Your task to perform on an android device: uninstall "Gmail" Image 0: 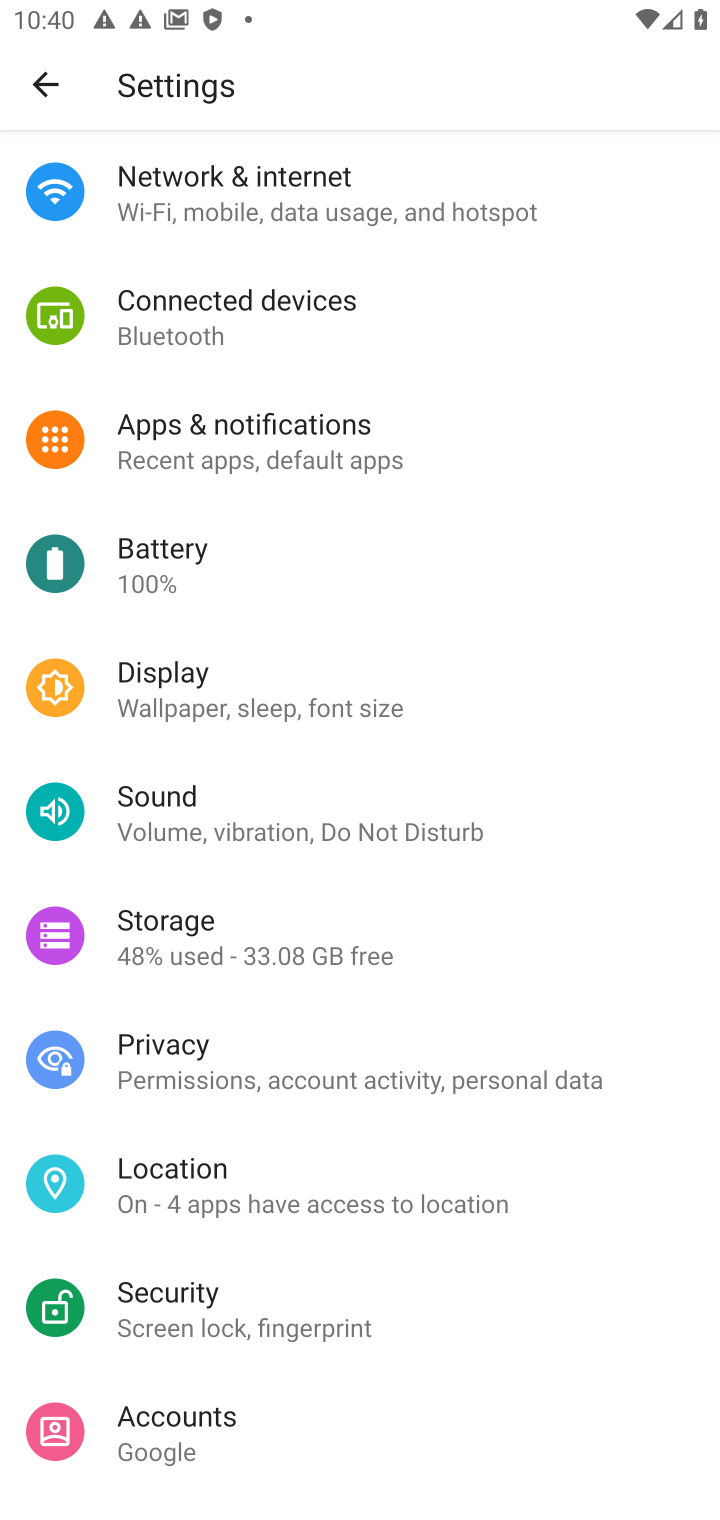
Step 0: press home button
Your task to perform on an android device: uninstall "Gmail" Image 1: 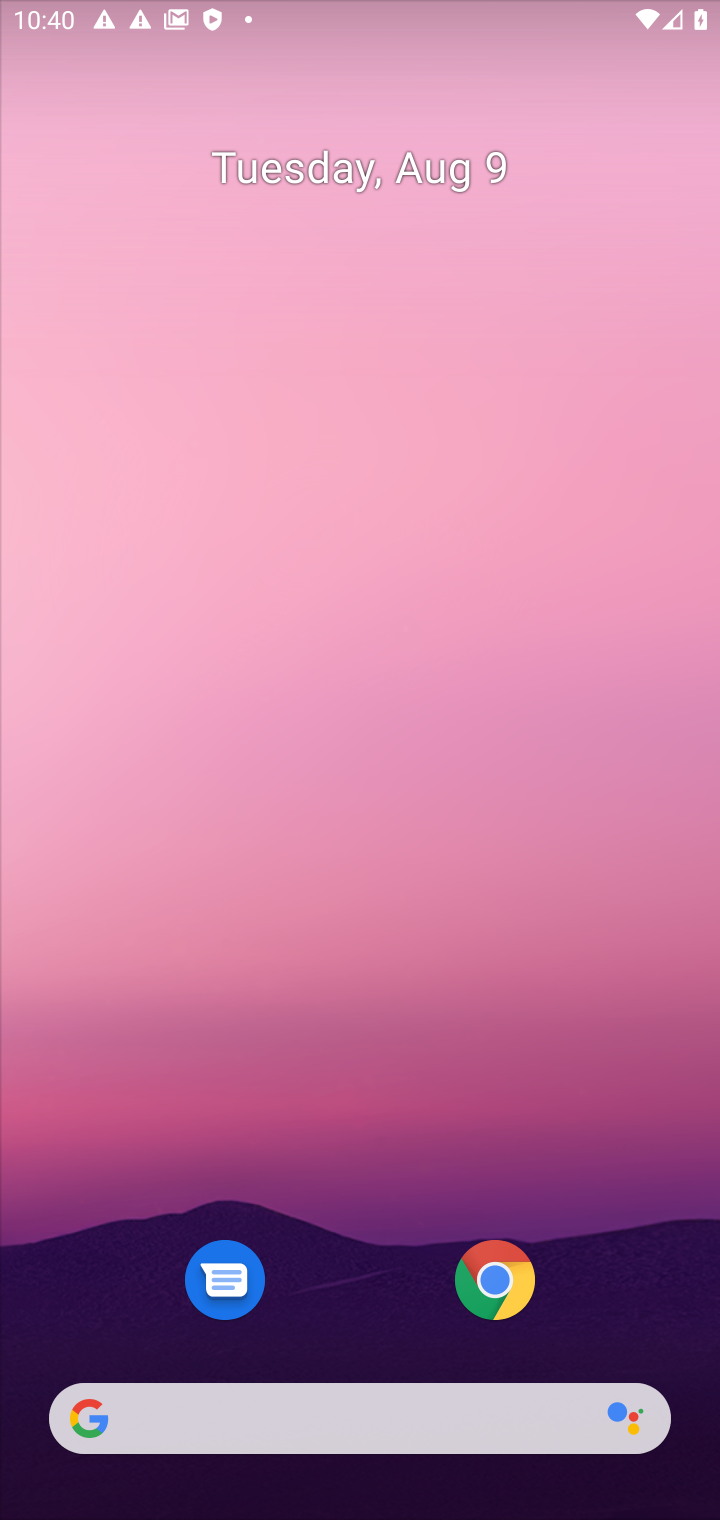
Step 1: drag from (378, 935) to (198, 11)
Your task to perform on an android device: uninstall "Gmail" Image 2: 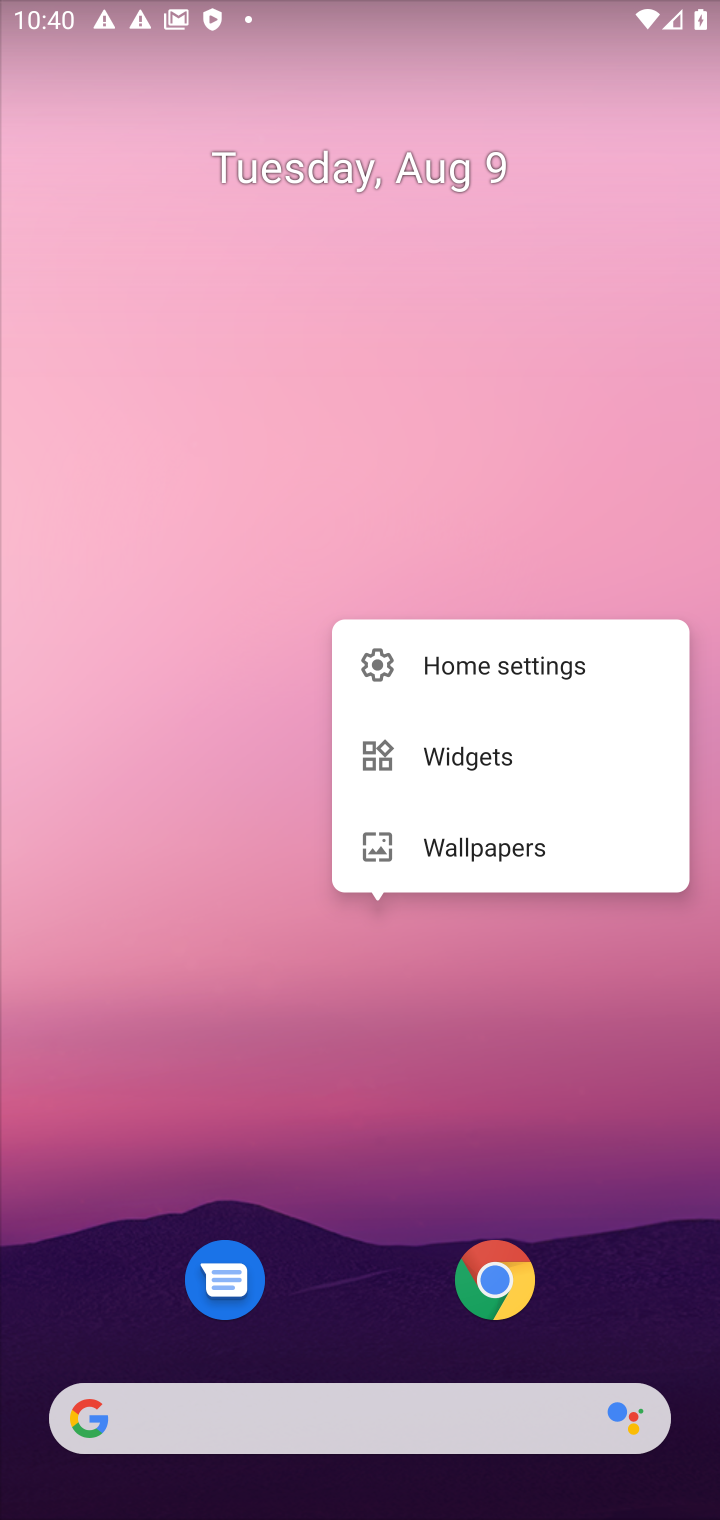
Step 2: click (387, 1346)
Your task to perform on an android device: uninstall "Gmail" Image 3: 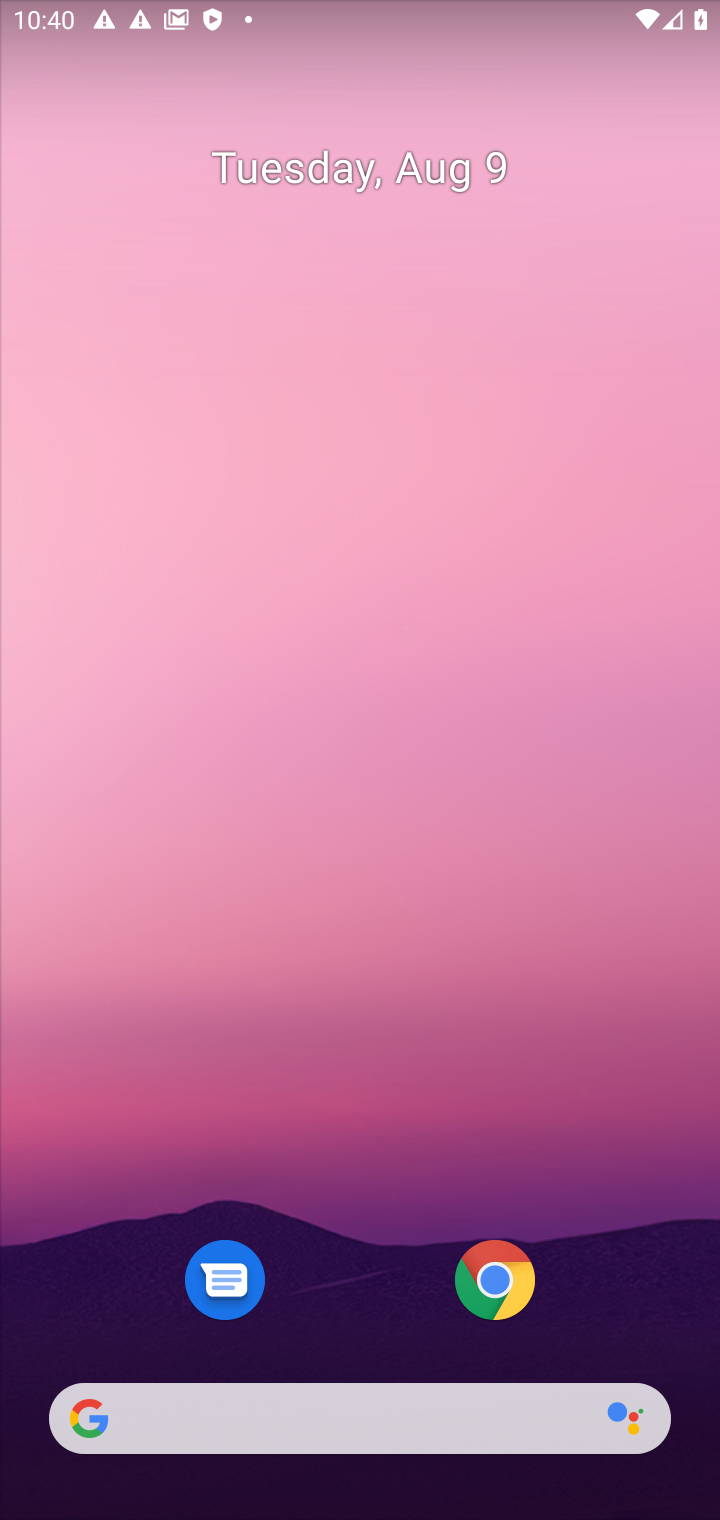
Step 3: drag from (351, 1281) to (26, 924)
Your task to perform on an android device: uninstall "Gmail" Image 4: 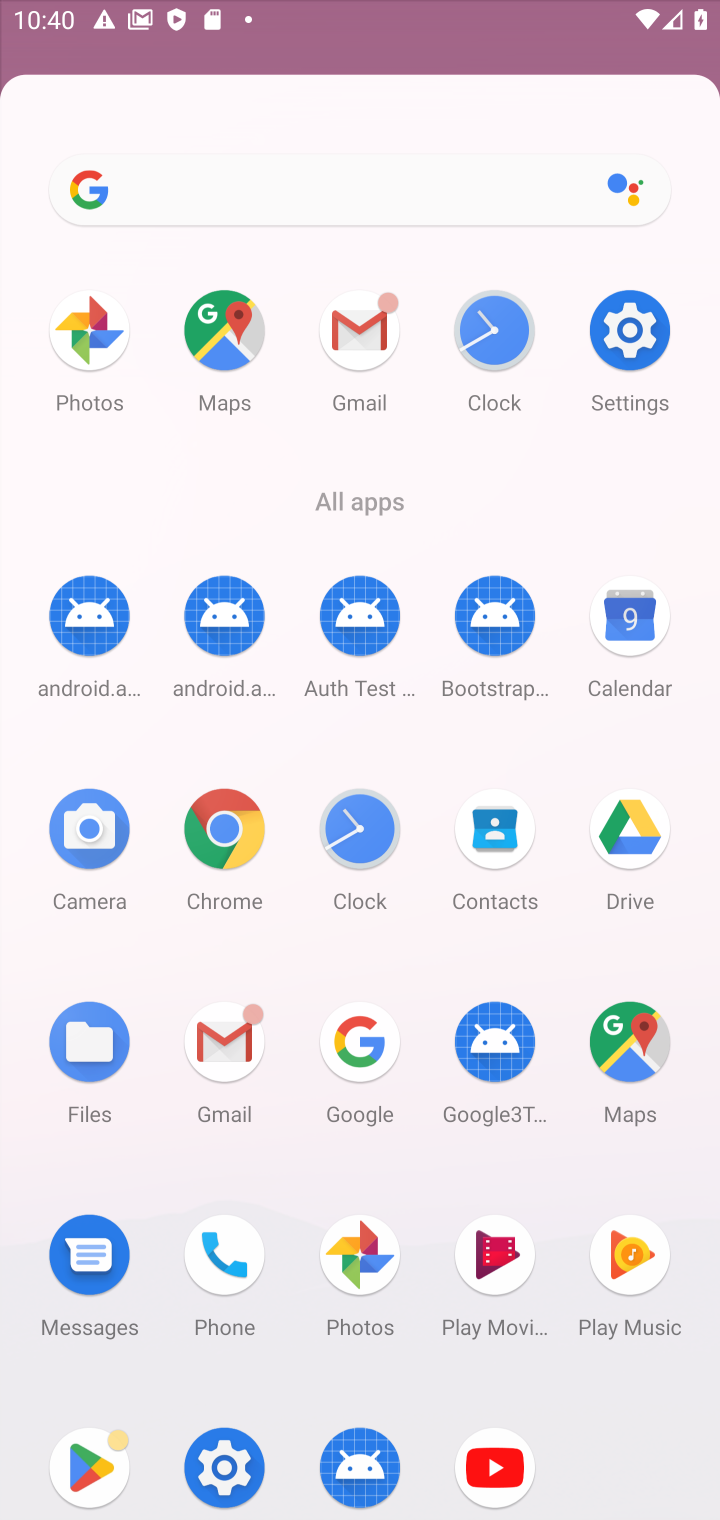
Step 4: click (218, 1031)
Your task to perform on an android device: uninstall "Gmail" Image 5: 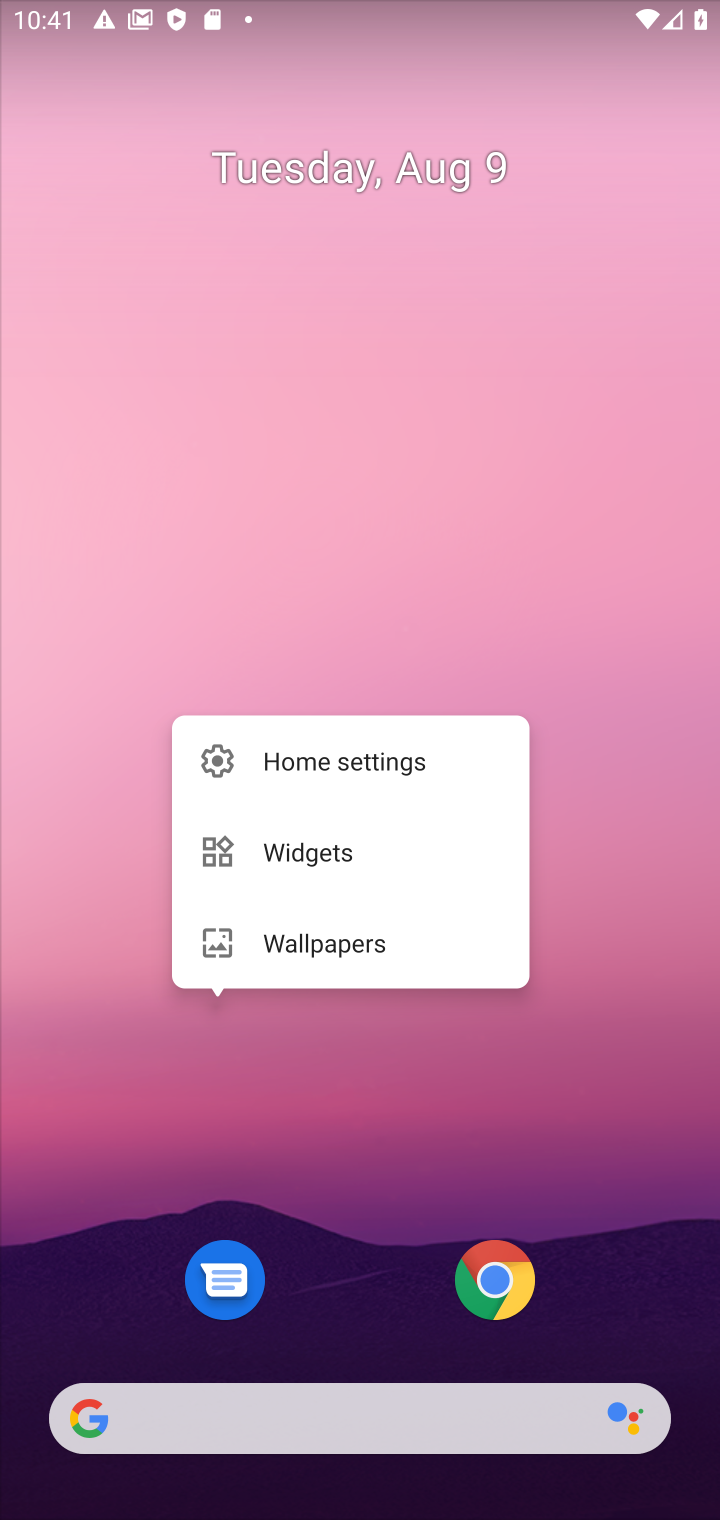
Step 5: drag from (378, 1336) to (716, 290)
Your task to perform on an android device: uninstall "Gmail" Image 6: 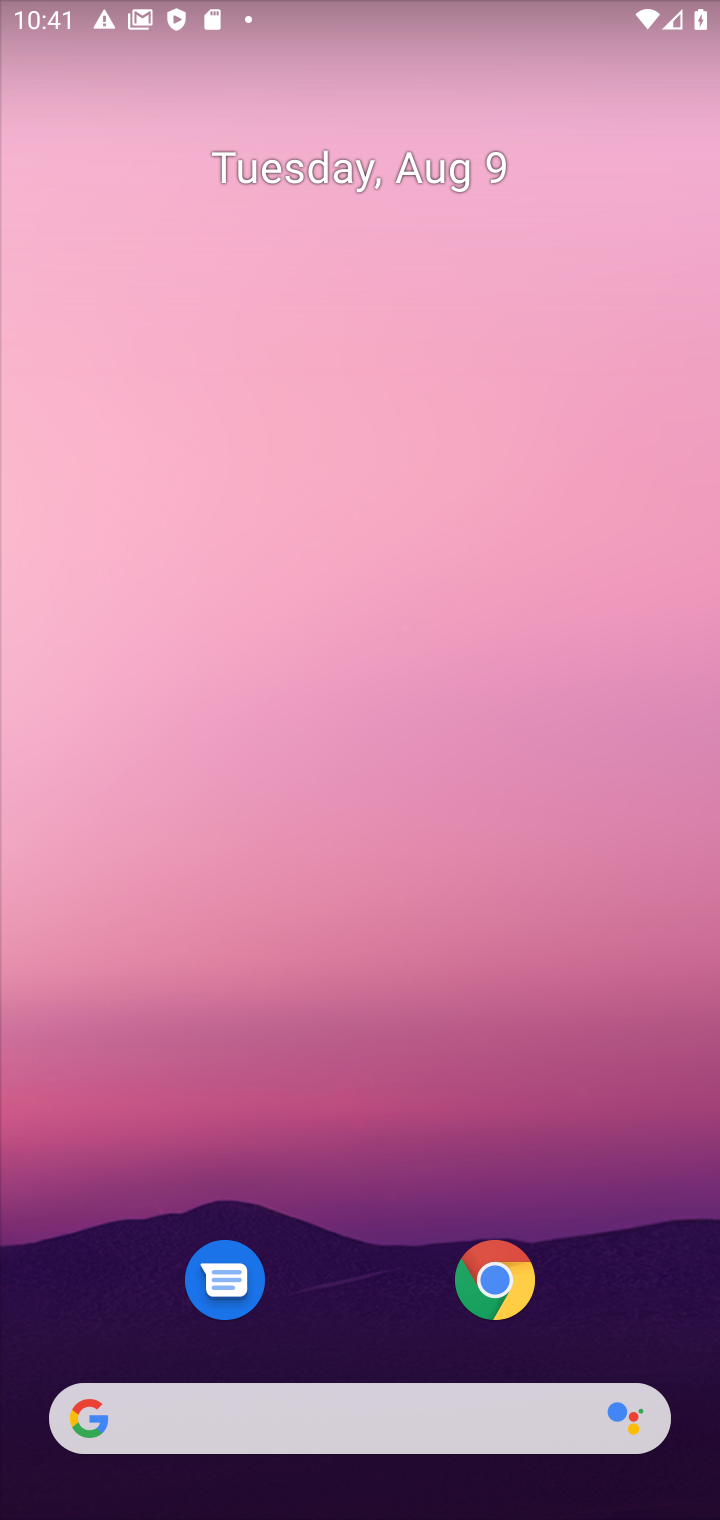
Step 6: drag from (321, 1354) to (683, 18)
Your task to perform on an android device: uninstall "Gmail" Image 7: 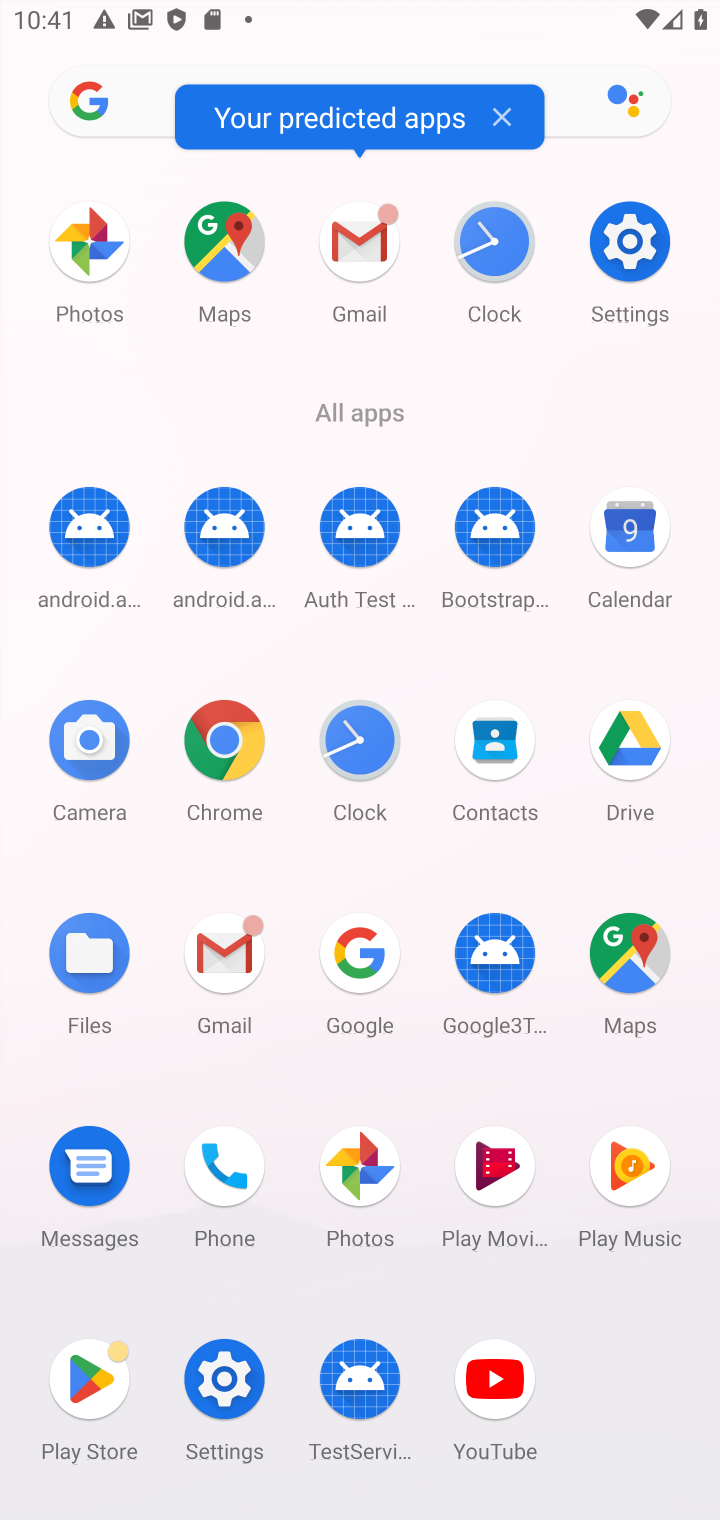
Step 7: click (238, 941)
Your task to perform on an android device: uninstall "Gmail" Image 8: 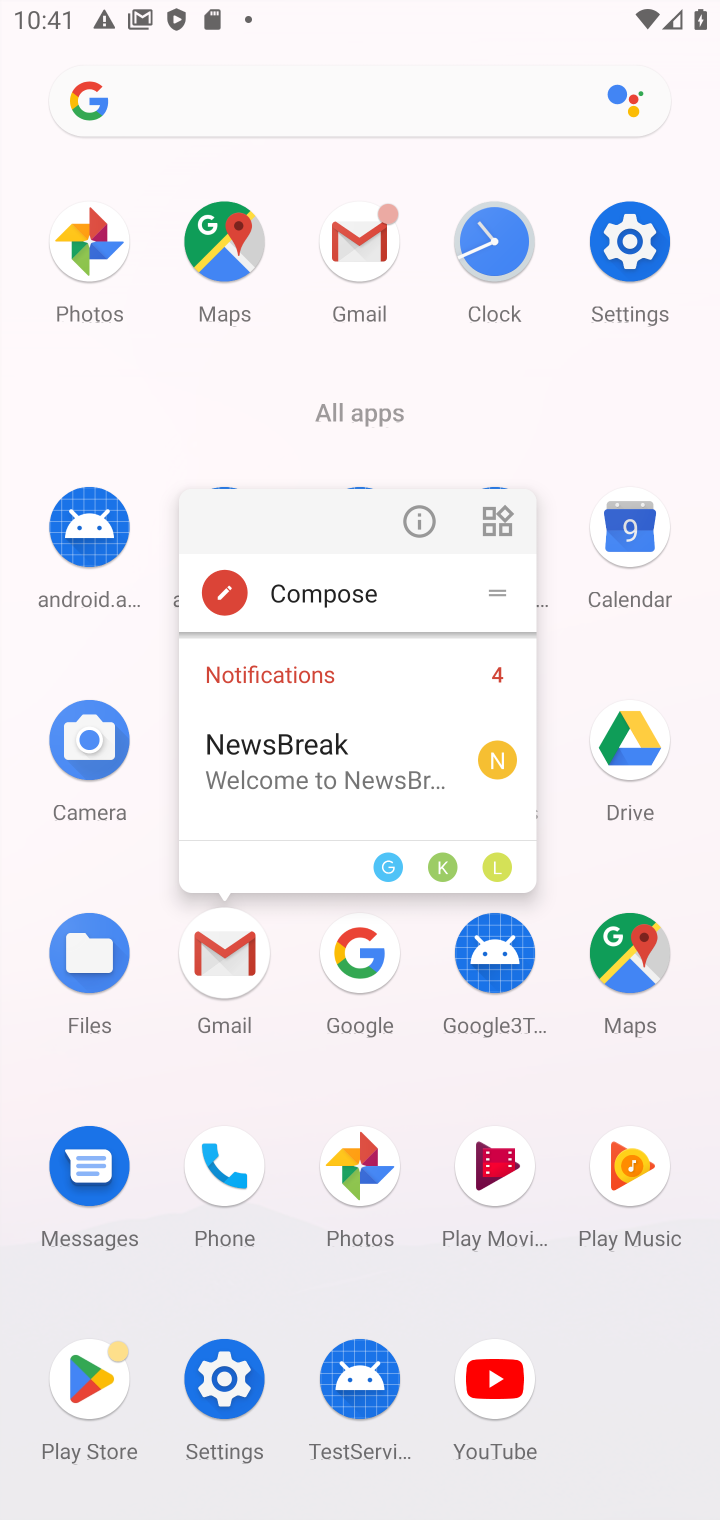
Step 8: click (417, 542)
Your task to perform on an android device: uninstall "Gmail" Image 9: 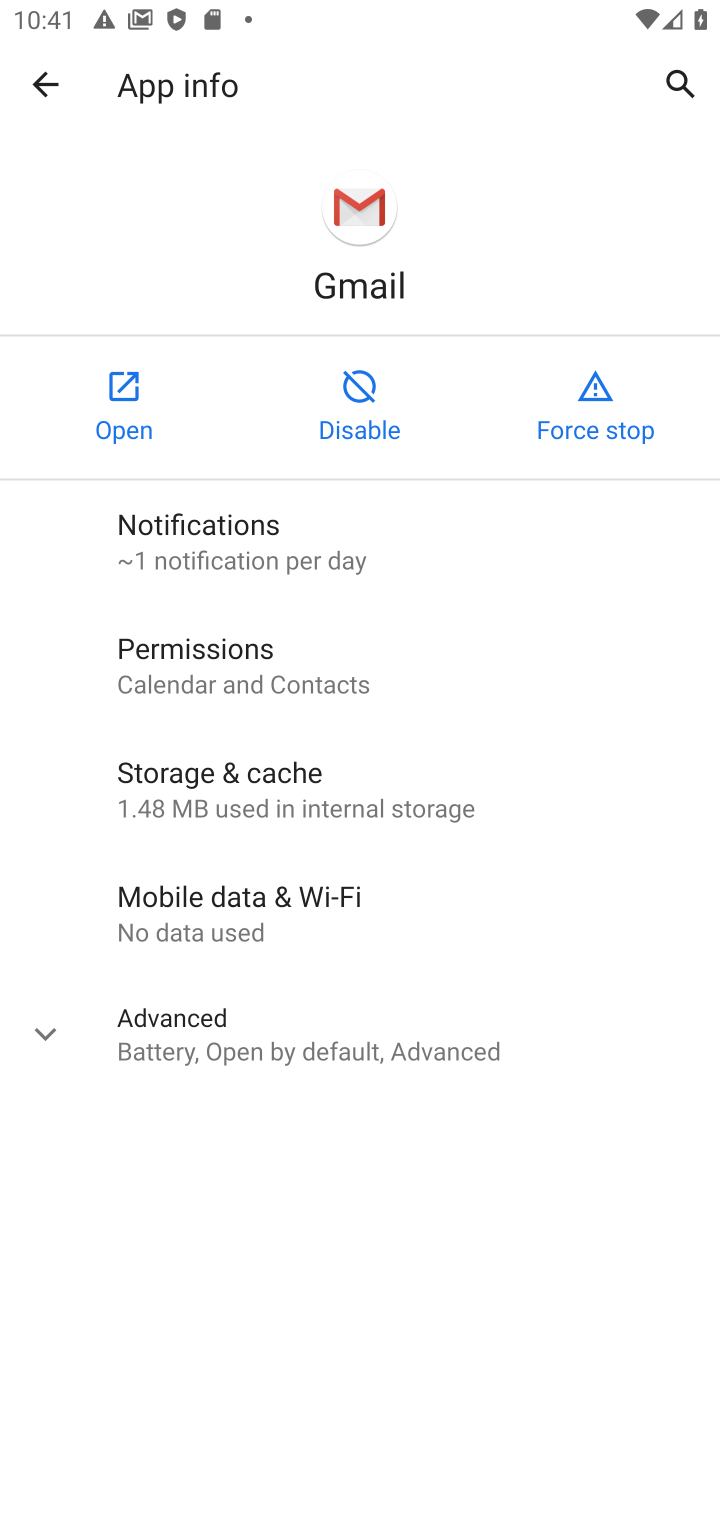
Step 9: task complete